Your task to perform on an android device: Go to settings Image 0: 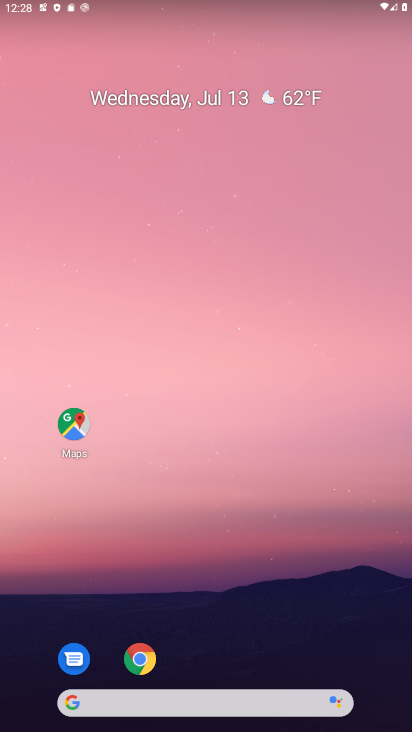
Step 0: drag from (220, 729) to (290, 105)
Your task to perform on an android device: Go to settings Image 1: 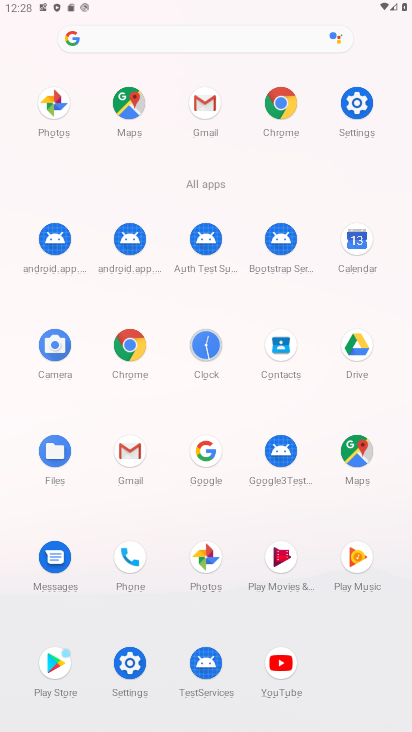
Step 1: click (349, 107)
Your task to perform on an android device: Go to settings Image 2: 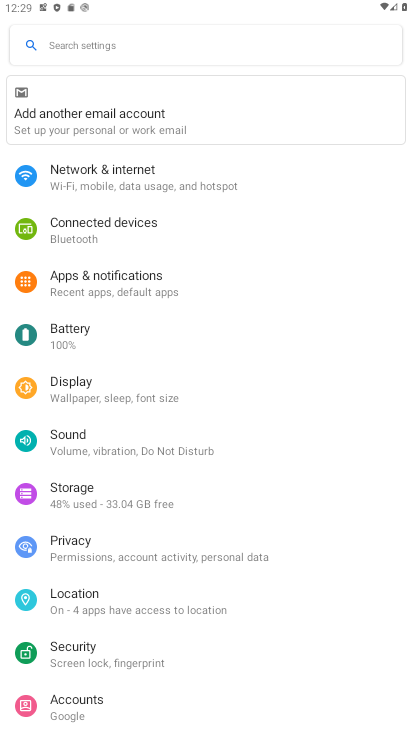
Step 2: task complete